Your task to perform on an android device: open sync settings in chrome Image 0: 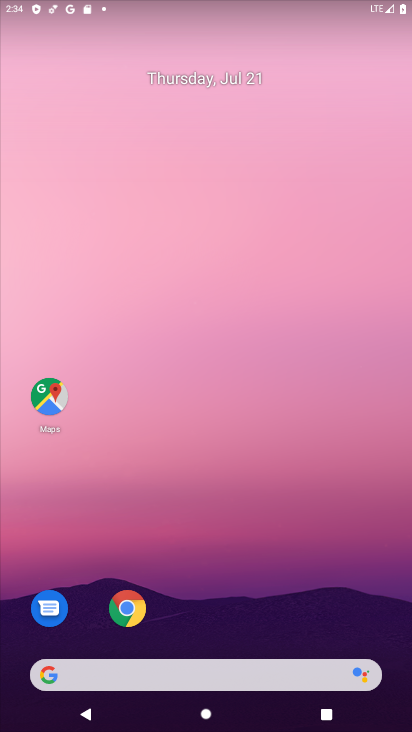
Step 0: drag from (203, 645) to (331, 10)
Your task to perform on an android device: open sync settings in chrome Image 1: 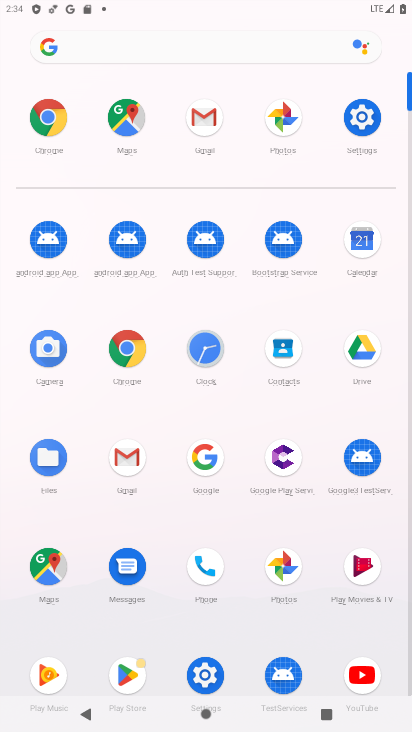
Step 1: click (132, 357)
Your task to perform on an android device: open sync settings in chrome Image 2: 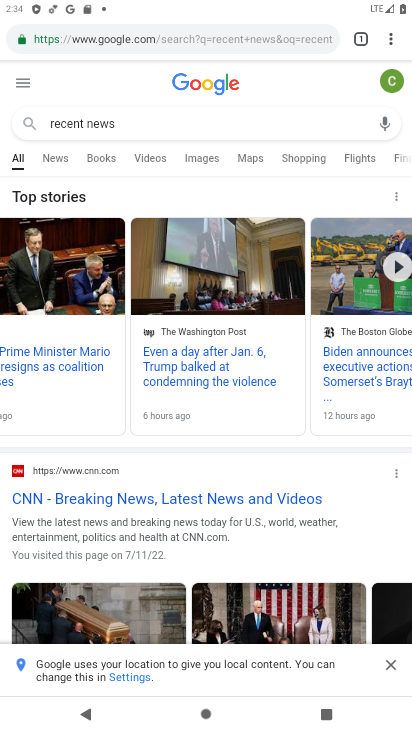
Step 2: drag from (389, 33) to (259, 479)
Your task to perform on an android device: open sync settings in chrome Image 3: 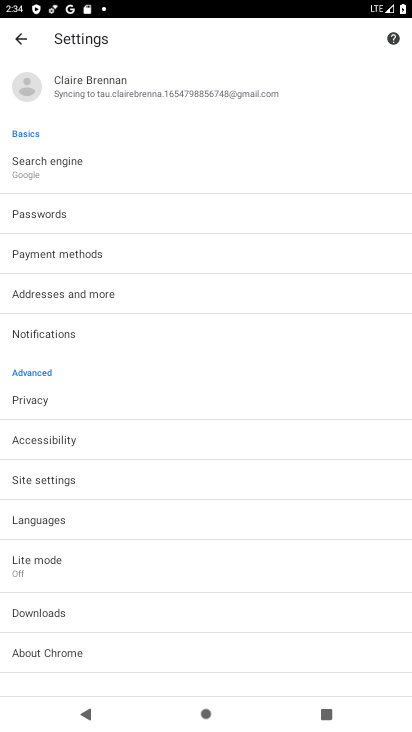
Step 3: click (102, 85)
Your task to perform on an android device: open sync settings in chrome Image 4: 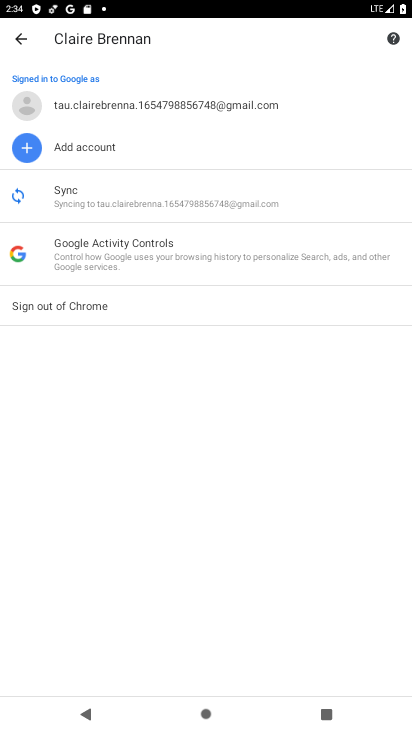
Step 4: click (113, 191)
Your task to perform on an android device: open sync settings in chrome Image 5: 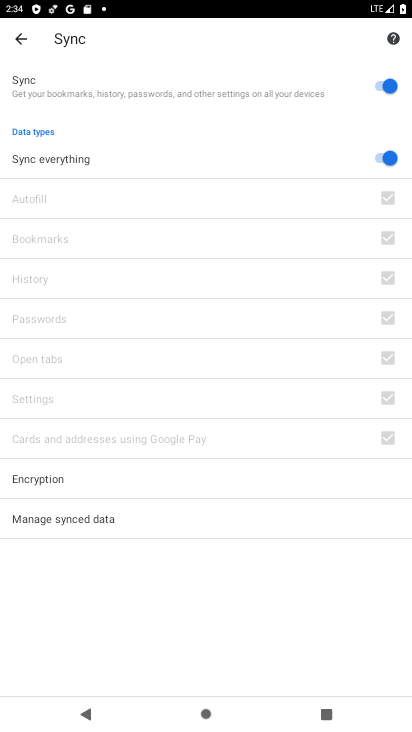
Step 5: task complete